Your task to perform on an android device: Go to Maps Image 0: 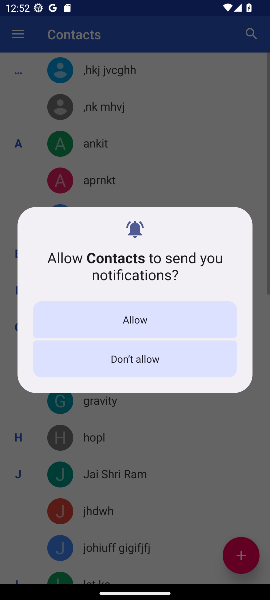
Step 0: press home button
Your task to perform on an android device: Go to Maps Image 1: 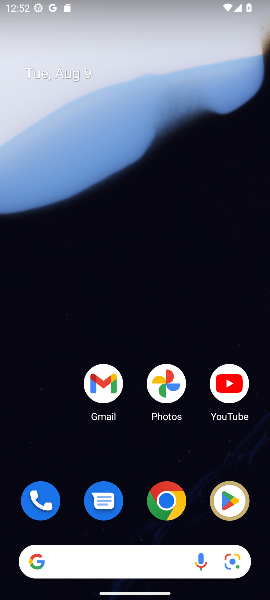
Step 1: drag from (178, 462) to (178, 94)
Your task to perform on an android device: Go to Maps Image 2: 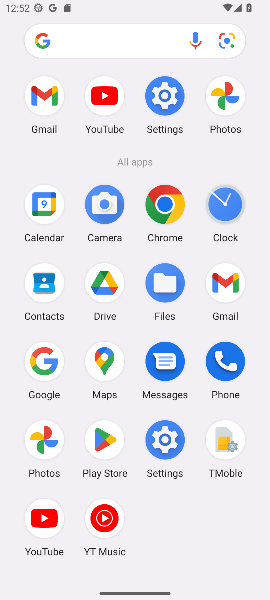
Step 2: click (102, 369)
Your task to perform on an android device: Go to Maps Image 3: 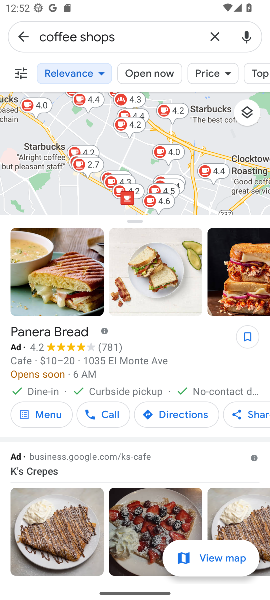
Step 3: task complete